Your task to perform on an android device: Open eBay Image 0: 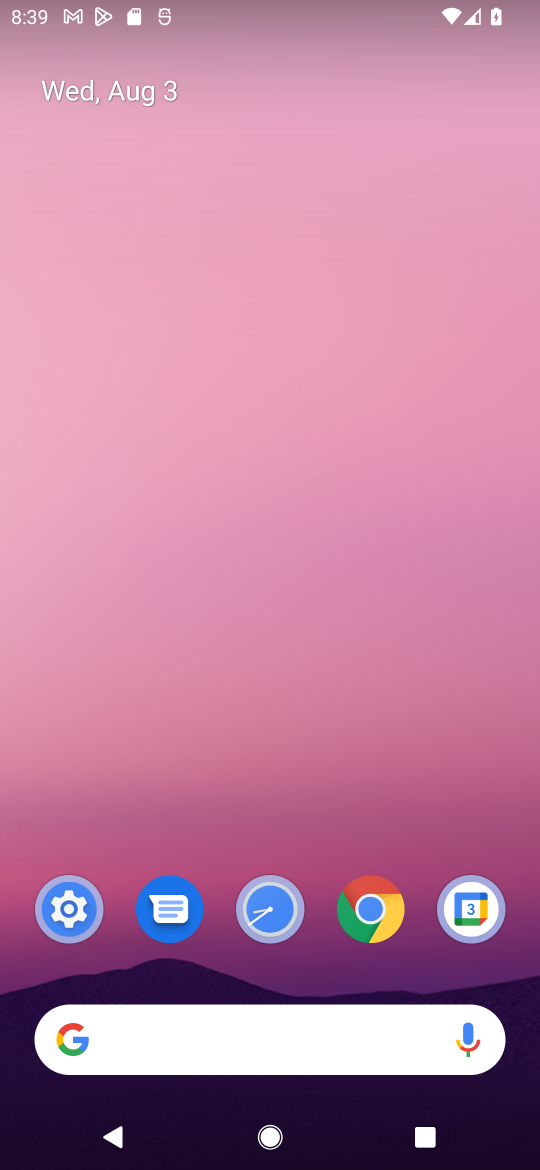
Step 0: press home button
Your task to perform on an android device: Open eBay Image 1: 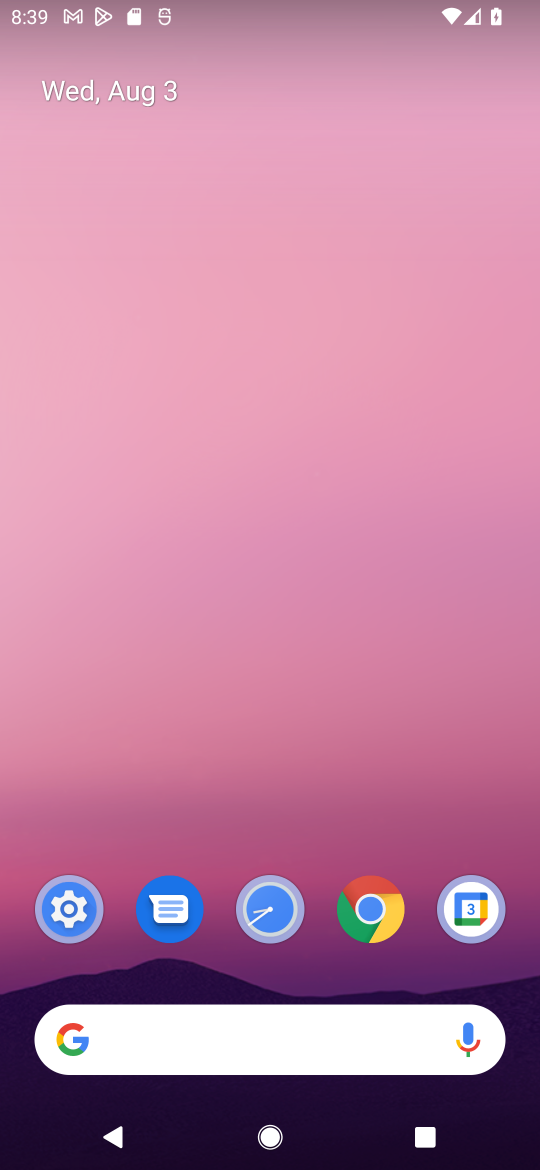
Step 1: drag from (420, 823) to (429, 254)
Your task to perform on an android device: Open eBay Image 2: 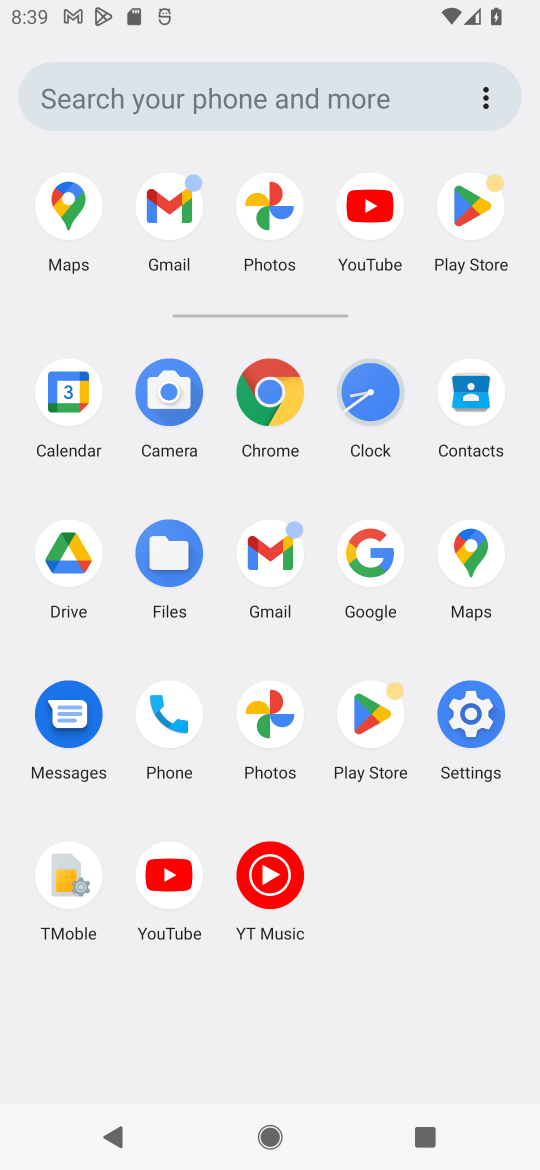
Step 2: click (263, 407)
Your task to perform on an android device: Open eBay Image 3: 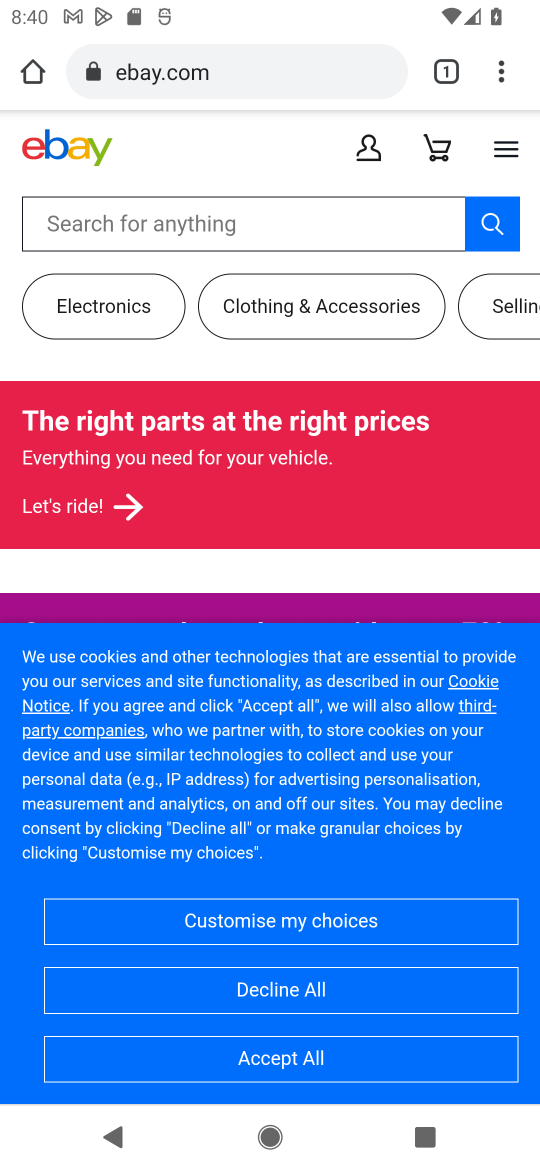
Step 3: task complete